Your task to perform on an android device: open a bookmark in the chrome app Image 0: 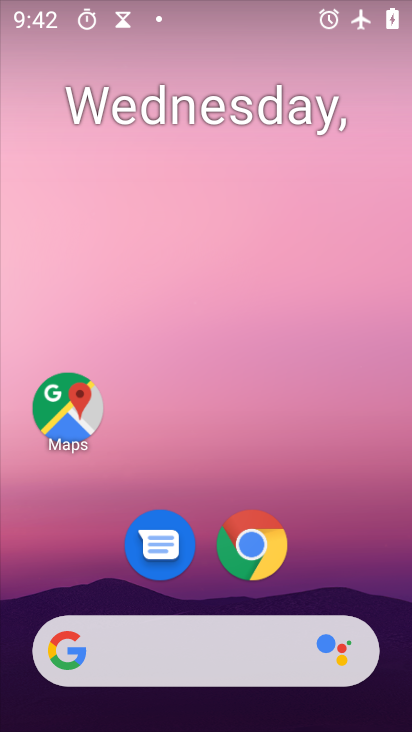
Step 0: press home button
Your task to perform on an android device: open a bookmark in the chrome app Image 1: 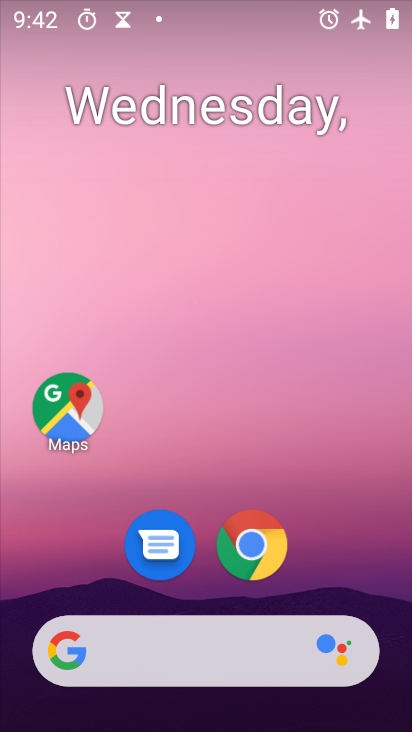
Step 1: click (265, 557)
Your task to perform on an android device: open a bookmark in the chrome app Image 2: 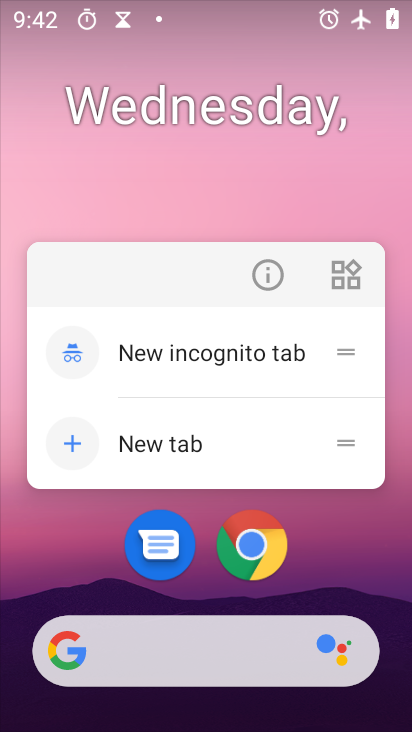
Step 2: click (256, 560)
Your task to perform on an android device: open a bookmark in the chrome app Image 3: 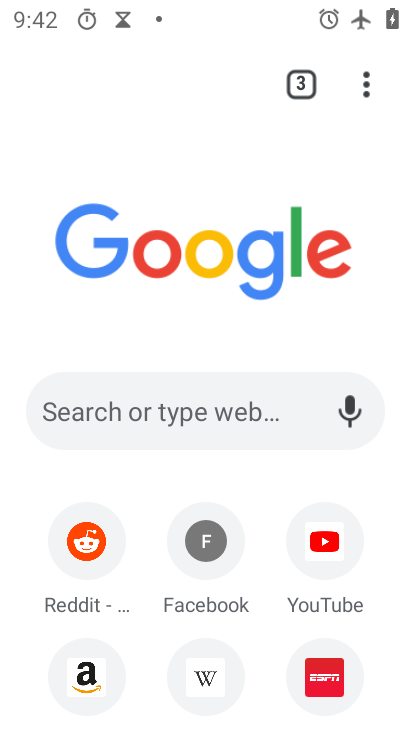
Step 3: task complete